Your task to perform on an android device: toggle translation in the chrome app Image 0: 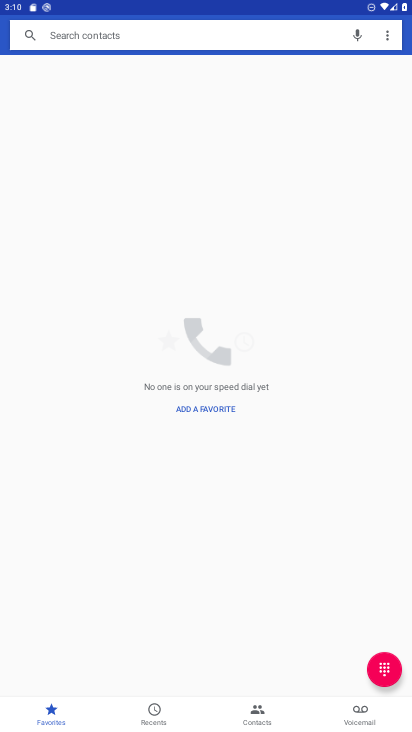
Step 0: press home button
Your task to perform on an android device: toggle translation in the chrome app Image 1: 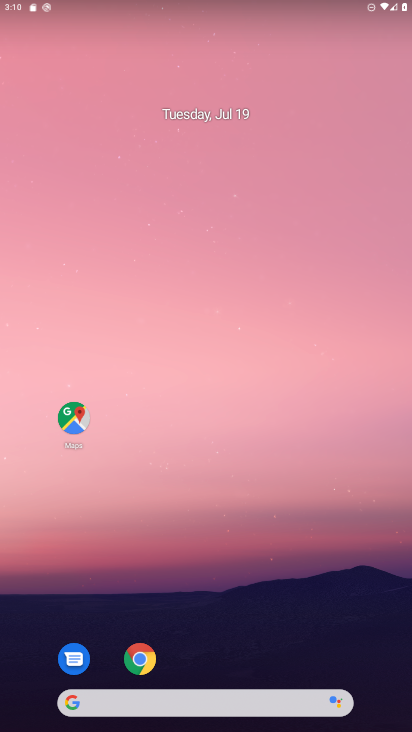
Step 1: click (138, 660)
Your task to perform on an android device: toggle translation in the chrome app Image 2: 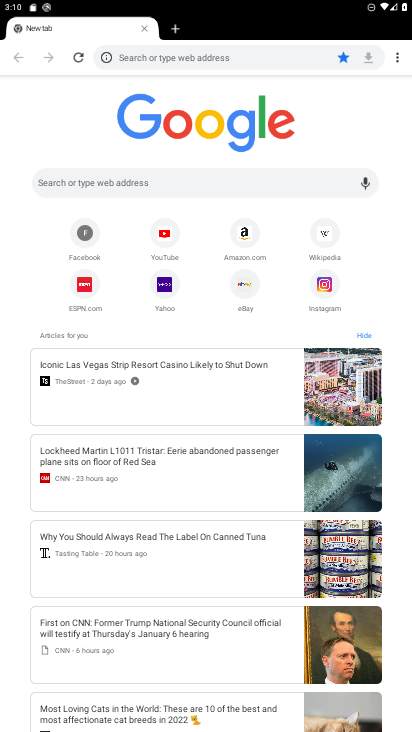
Step 2: click (398, 58)
Your task to perform on an android device: toggle translation in the chrome app Image 3: 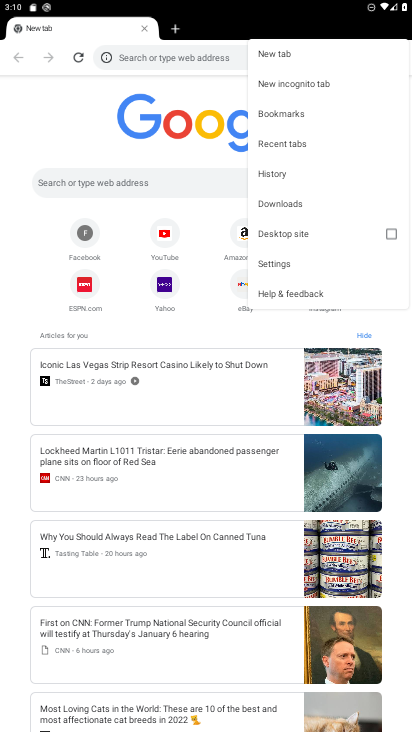
Step 3: click (306, 263)
Your task to perform on an android device: toggle translation in the chrome app Image 4: 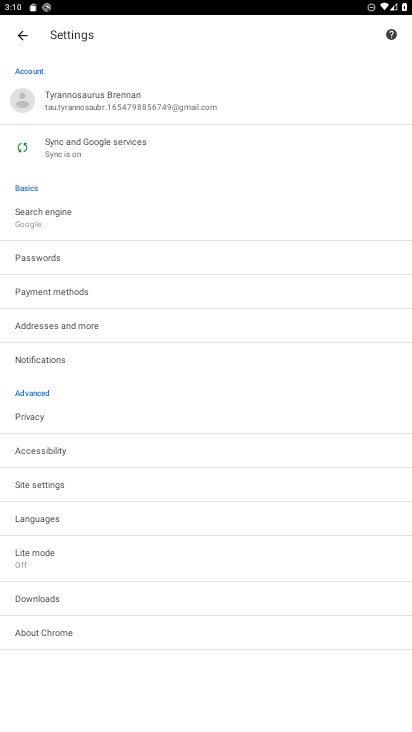
Step 4: click (59, 525)
Your task to perform on an android device: toggle translation in the chrome app Image 5: 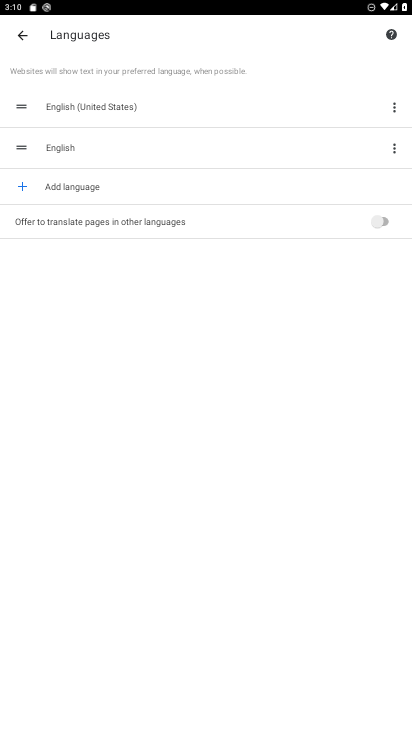
Step 5: click (392, 217)
Your task to perform on an android device: toggle translation in the chrome app Image 6: 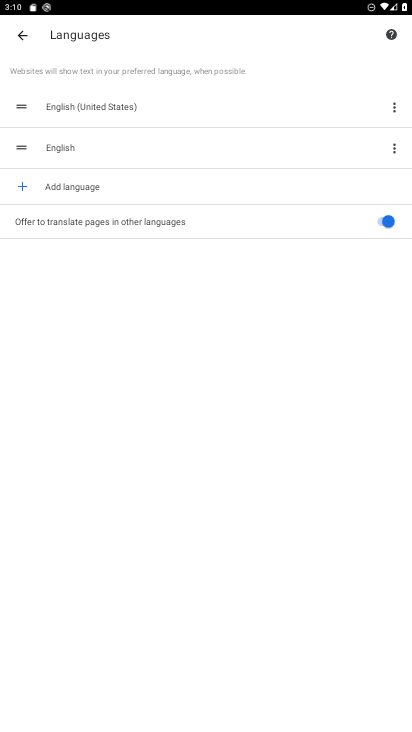
Step 6: task complete